Your task to perform on an android device: Open settings on Google Maps Image 0: 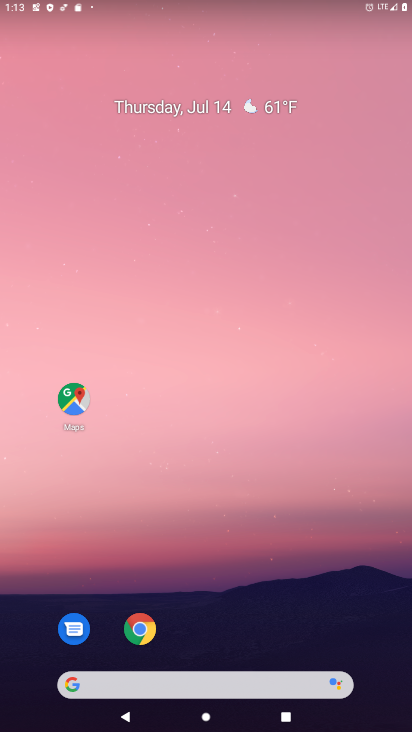
Step 0: drag from (253, 592) to (173, 163)
Your task to perform on an android device: Open settings on Google Maps Image 1: 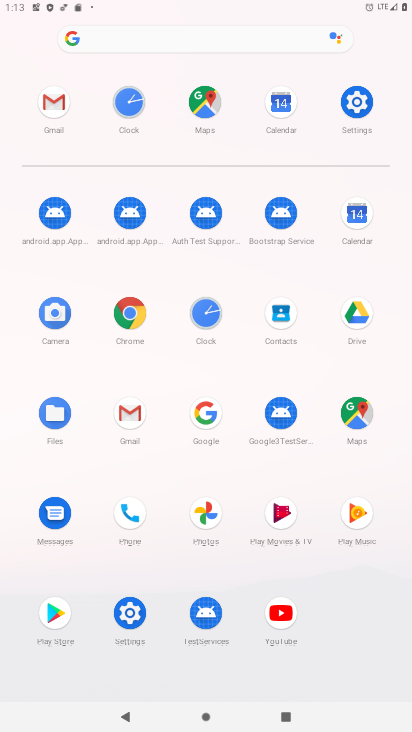
Step 1: click (203, 106)
Your task to perform on an android device: Open settings on Google Maps Image 2: 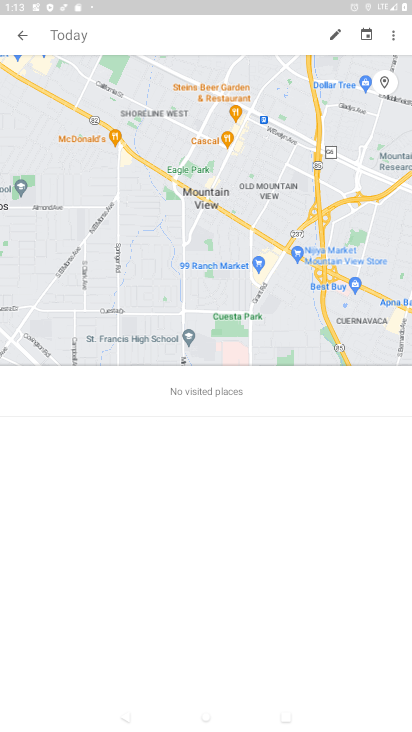
Step 2: click (18, 35)
Your task to perform on an android device: Open settings on Google Maps Image 3: 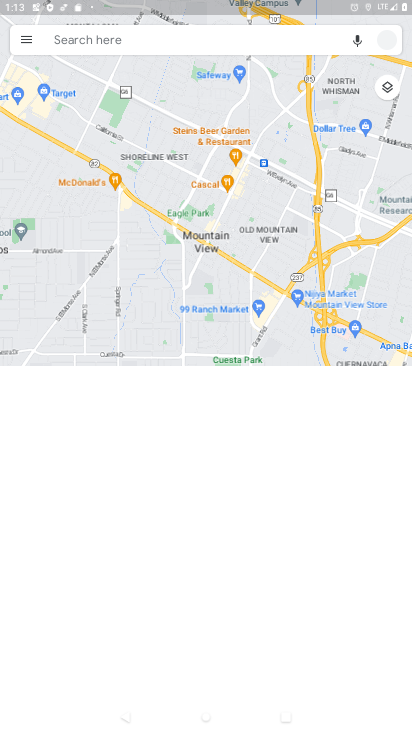
Step 3: click (24, 40)
Your task to perform on an android device: Open settings on Google Maps Image 4: 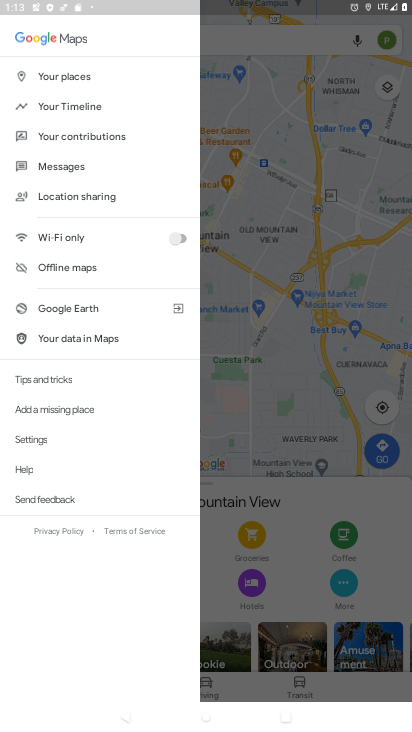
Step 4: click (34, 444)
Your task to perform on an android device: Open settings on Google Maps Image 5: 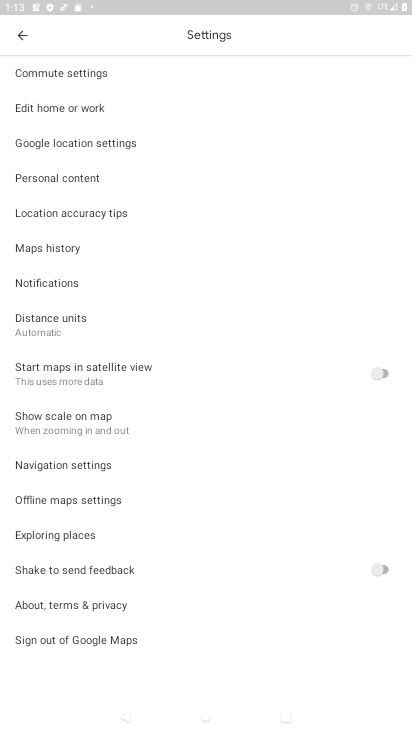
Step 5: task complete